Your task to perform on an android device: Open Android settings Image 0: 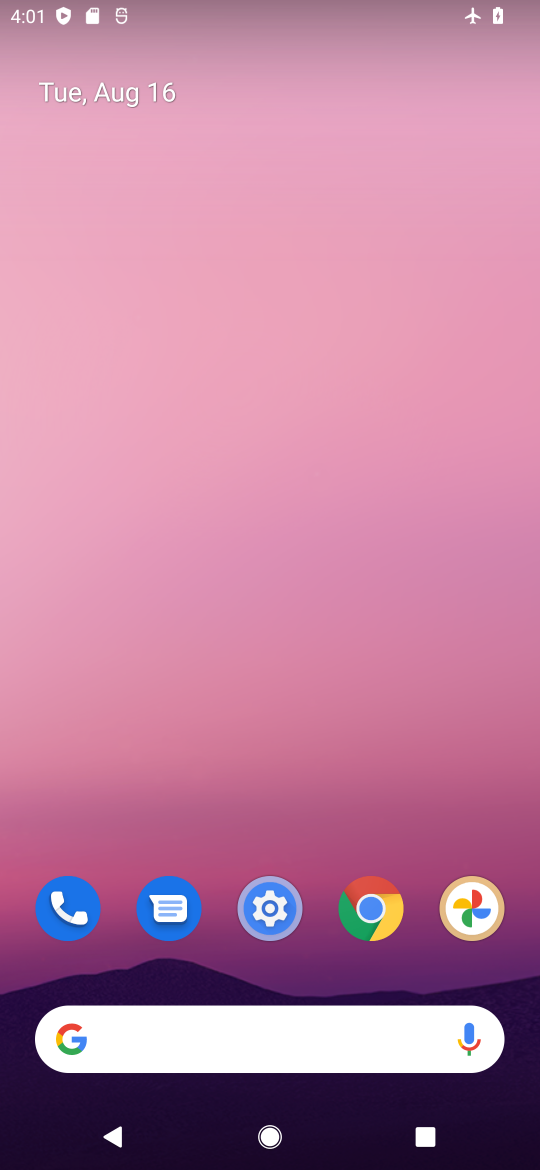
Step 0: press home button
Your task to perform on an android device: Open Android settings Image 1: 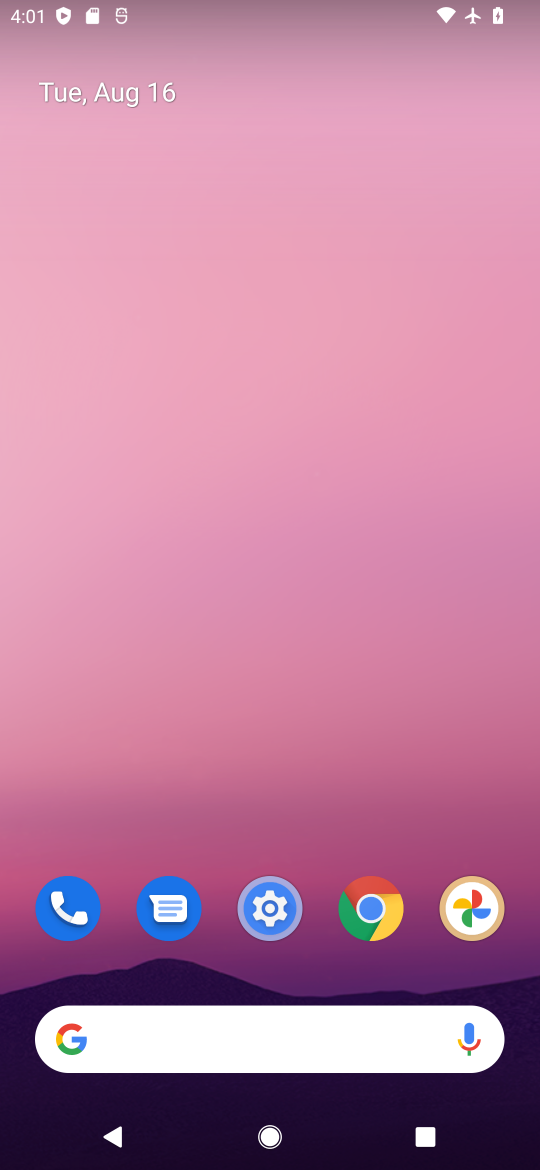
Step 1: drag from (311, 872) to (356, 0)
Your task to perform on an android device: Open Android settings Image 2: 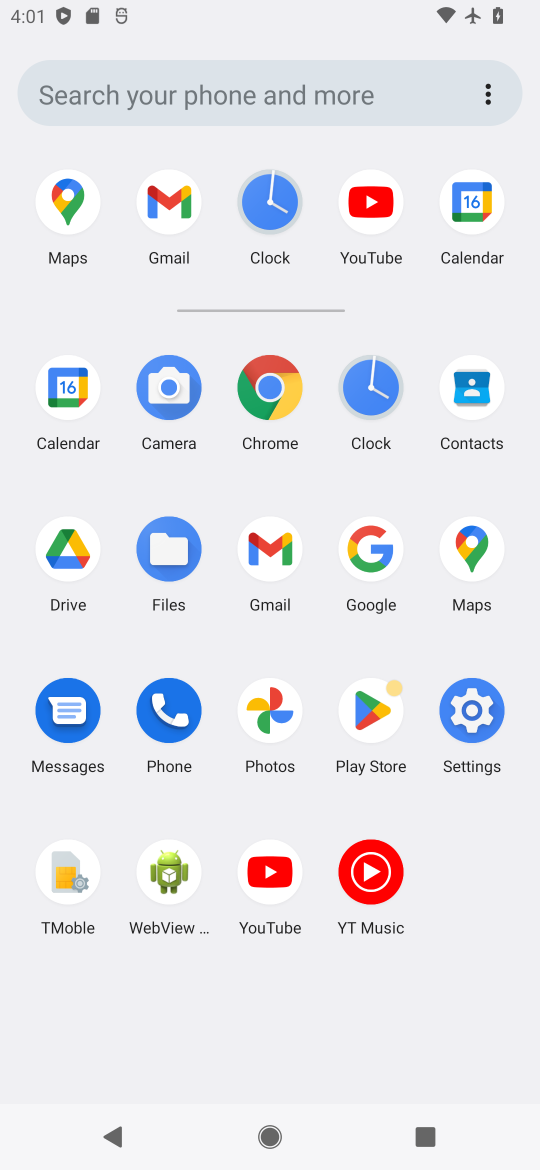
Step 2: click (475, 704)
Your task to perform on an android device: Open Android settings Image 3: 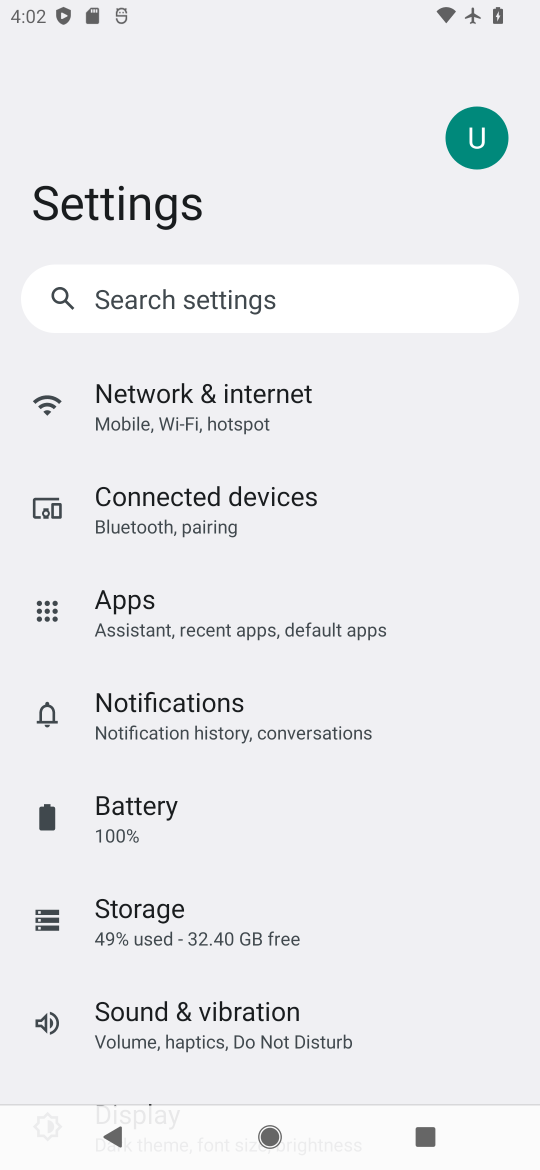
Step 3: drag from (344, 1020) to (365, 153)
Your task to perform on an android device: Open Android settings Image 4: 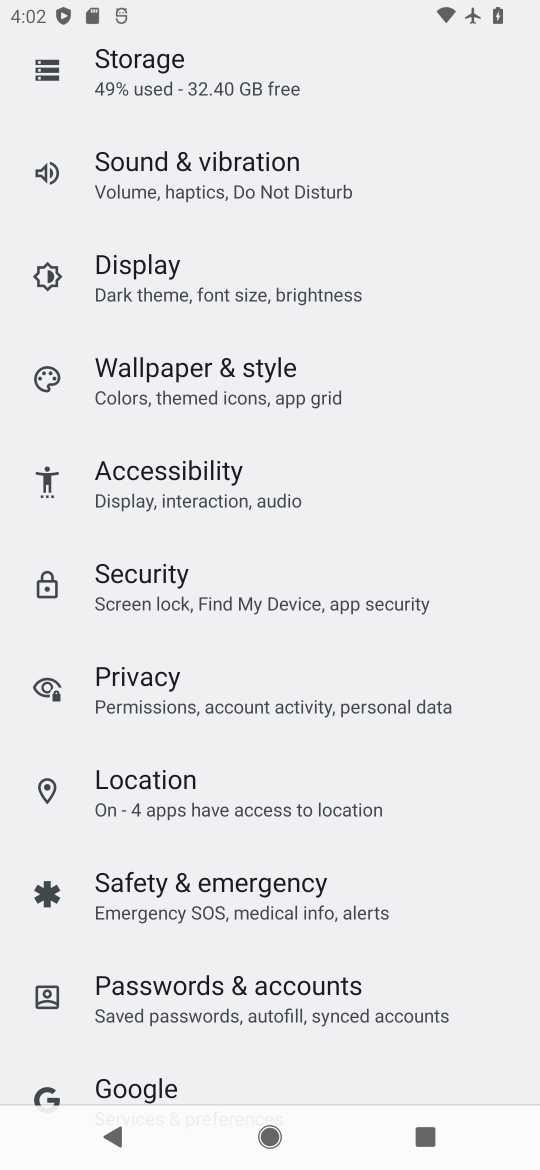
Step 4: drag from (308, 1037) to (314, 62)
Your task to perform on an android device: Open Android settings Image 5: 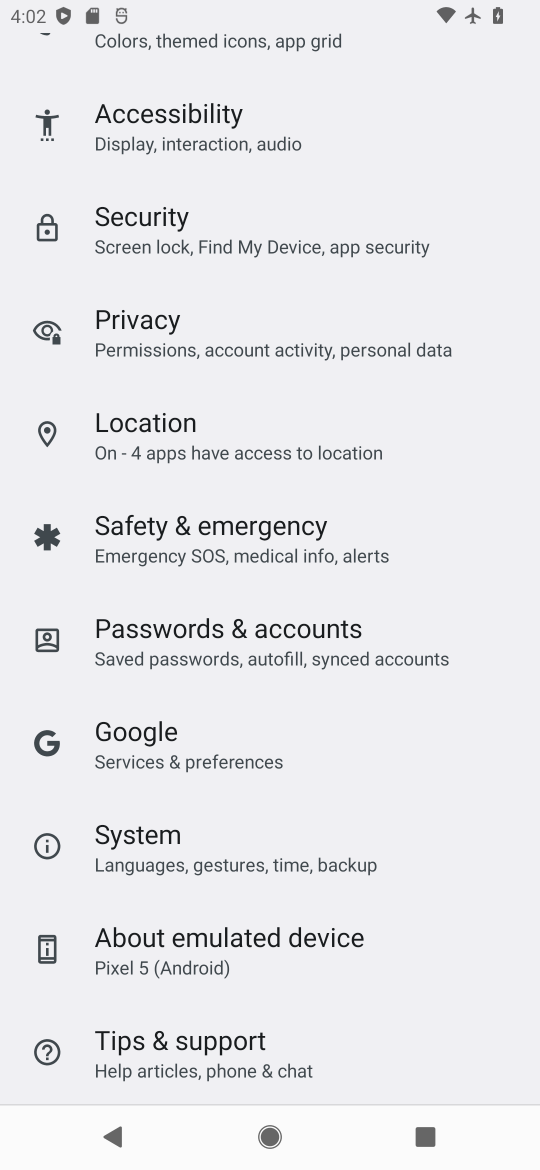
Step 5: click (265, 951)
Your task to perform on an android device: Open Android settings Image 6: 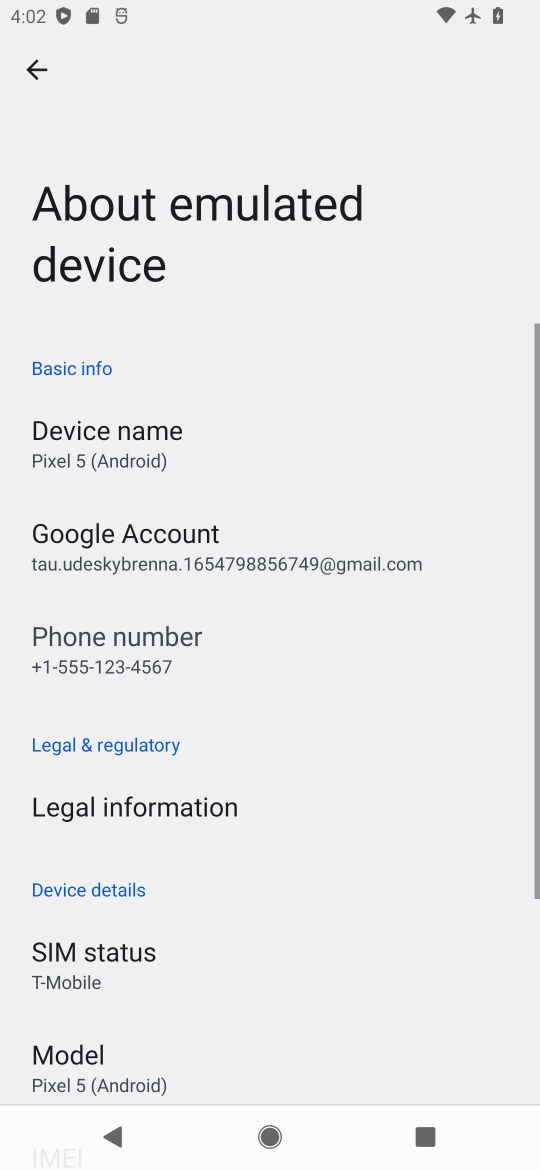
Step 6: drag from (253, 1029) to (249, 114)
Your task to perform on an android device: Open Android settings Image 7: 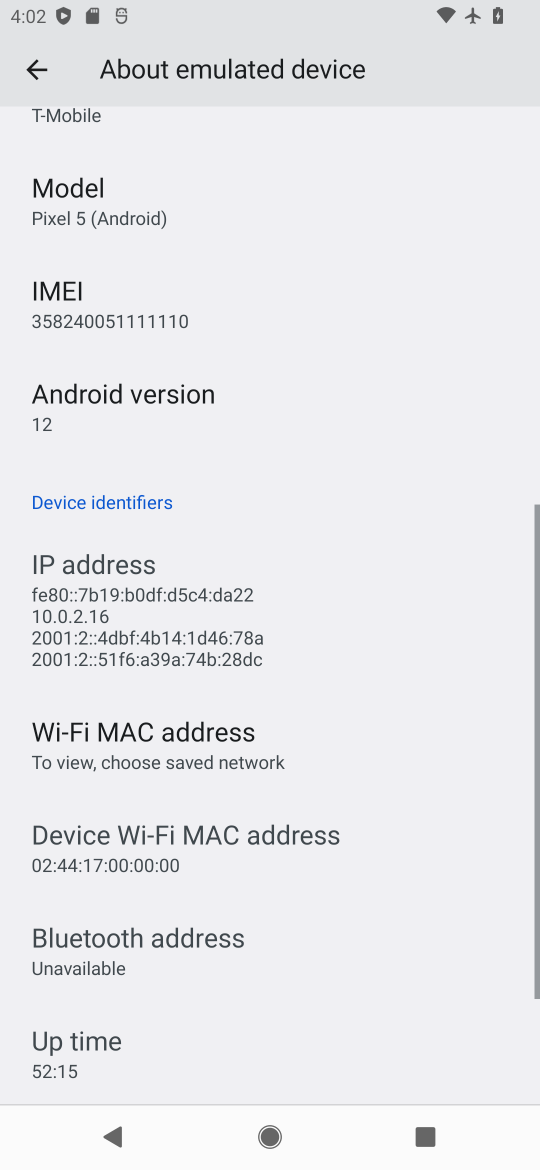
Step 7: click (162, 411)
Your task to perform on an android device: Open Android settings Image 8: 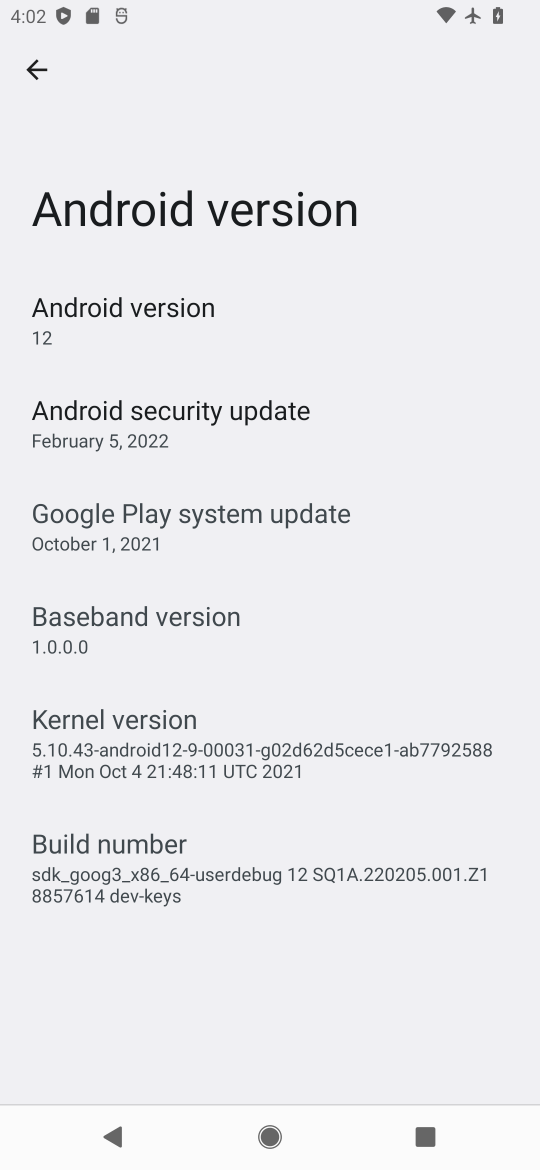
Step 8: task complete